Your task to perform on an android device: turn off sleep mode Image 0: 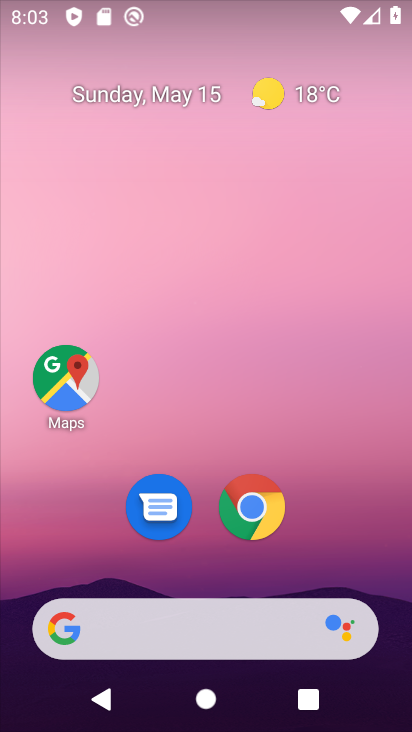
Step 0: press home button
Your task to perform on an android device: turn off sleep mode Image 1: 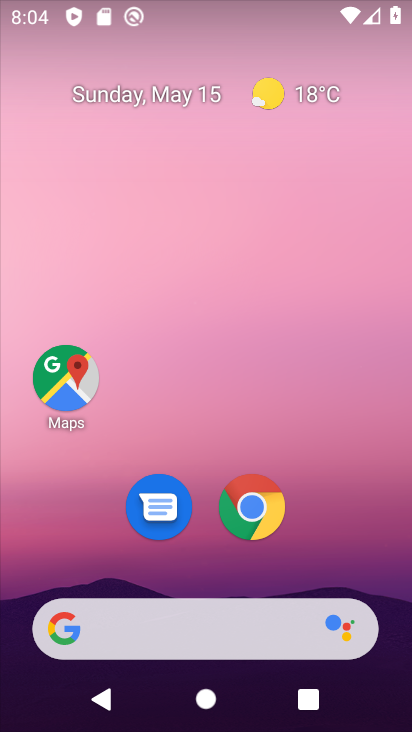
Step 1: drag from (13, 670) to (353, 156)
Your task to perform on an android device: turn off sleep mode Image 2: 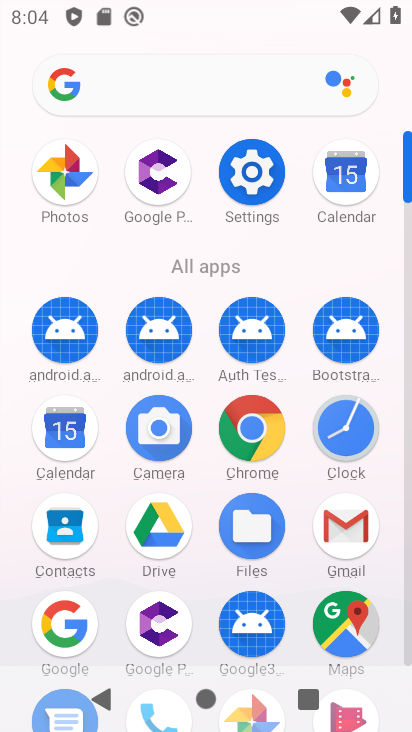
Step 2: click (242, 162)
Your task to perform on an android device: turn off sleep mode Image 3: 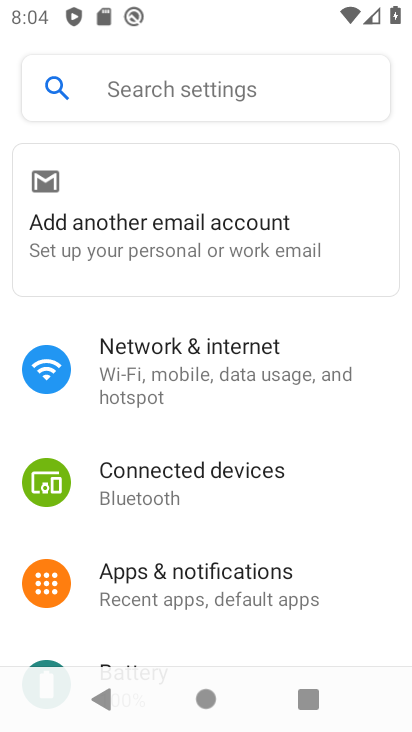
Step 3: drag from (129, 571) to (339, 218)
Your task to perform on an android device: turn off sleep mode Image 4: 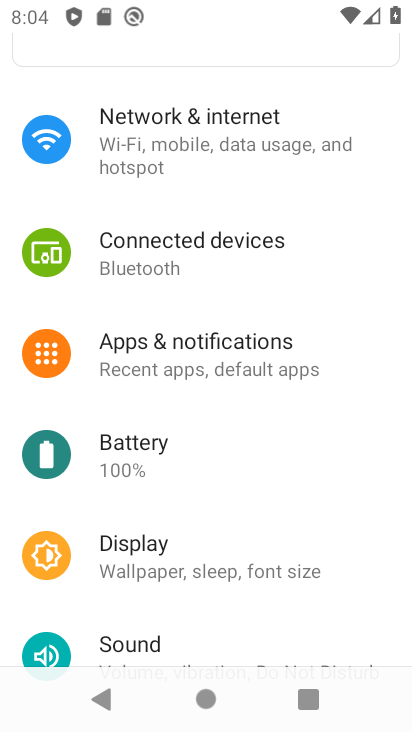
Step 4: click (162, 578)
Your task to perform on an android device: turn off sleep mode Image 5: 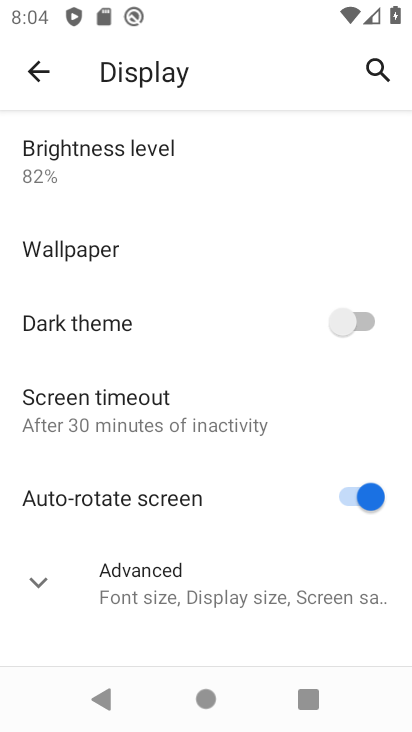
Step 5: task complete